Your task to perform on an android device: open a bookmark in the chrome app Image 0: 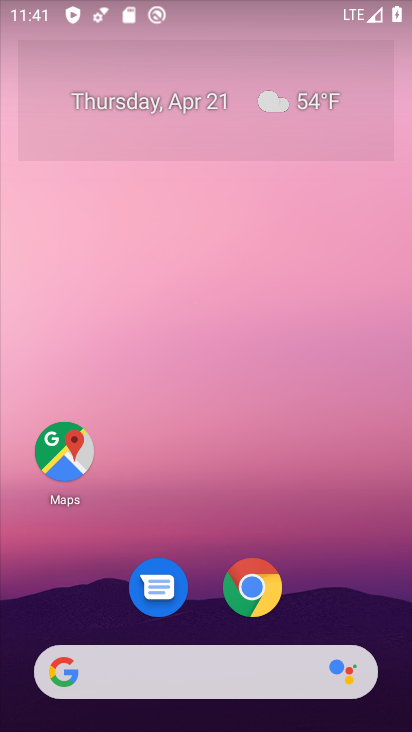
Step 0: click (254, 583)
Your task to perform on an android device: open a bookmark in the chrome app Image 1: 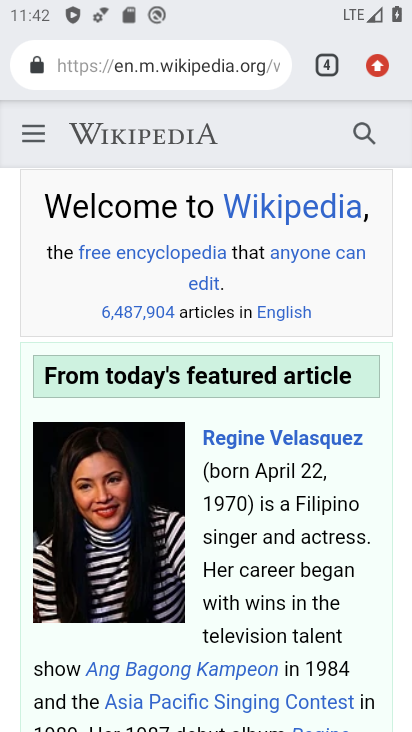
Step 1: drag from (375, 70) to (199, 344)
Your task to perform on an android device: open a bookmark in the chrome app Image 2: 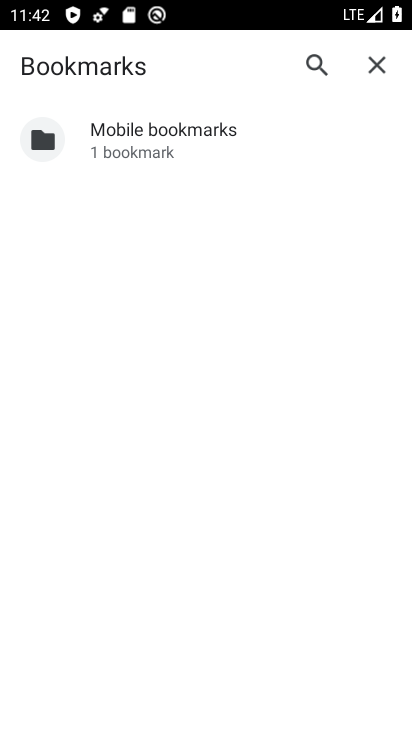
Step 2: click (150, 128)
Your task to perform on an android device: open a bookmark in the chrome app Image 3: 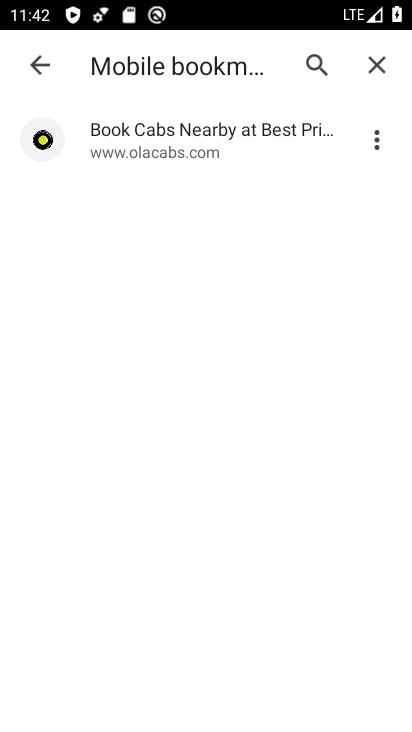
Step 3: click (145, 136)
Your task to perform on an android device: open a bookmark in the chrome app Image 4: 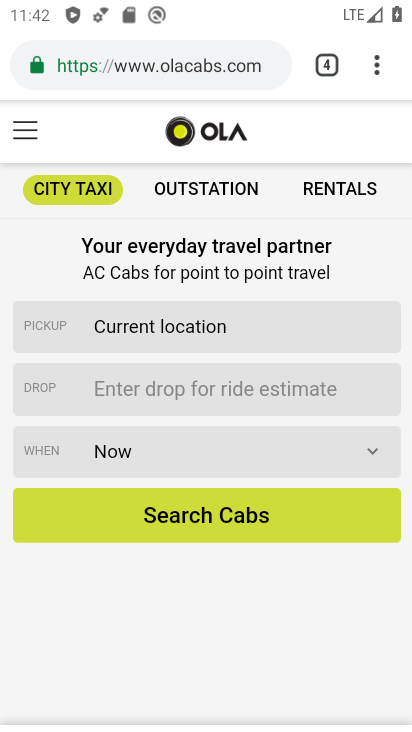
Step 4: task complete